Your task to perform on an android device: turn off location Image 0: 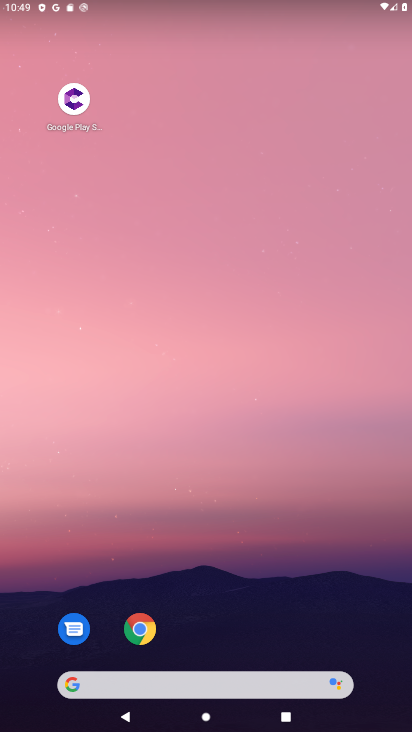
Step 0: drag from (178, 598) to (277, 59)
Your task to perform on an android device: turn off location Image 1: 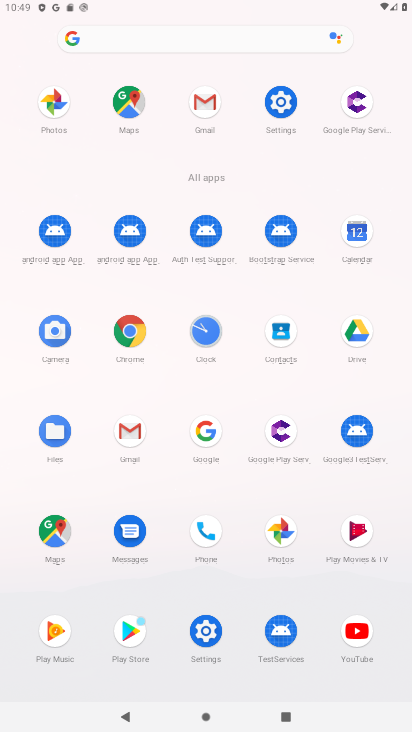
Step 1: click (282, 93)
Your task to perform on an android device: turn off location Image 2: 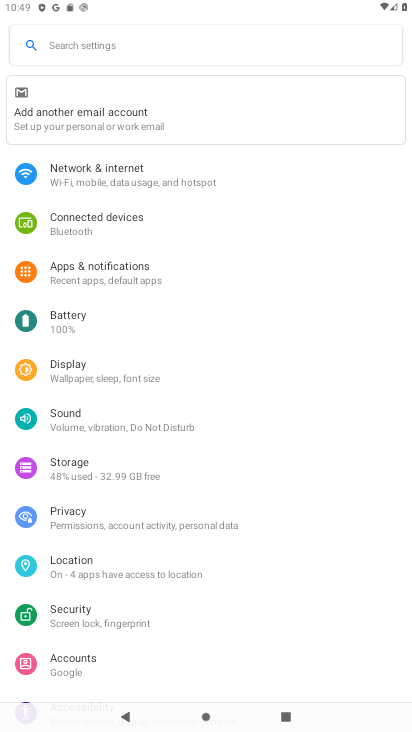
Step 2: click (118, 572)
Your task to perform on an android device: turn off location Image 3: 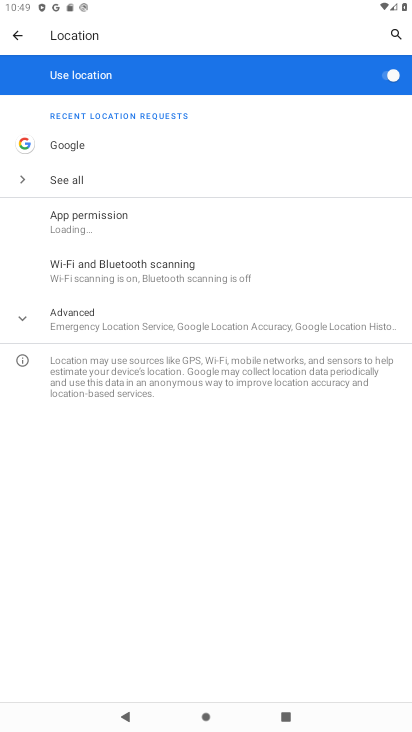
Step 3: click (130, 323)
Your task to perform on an android device: turn off location Image 4: 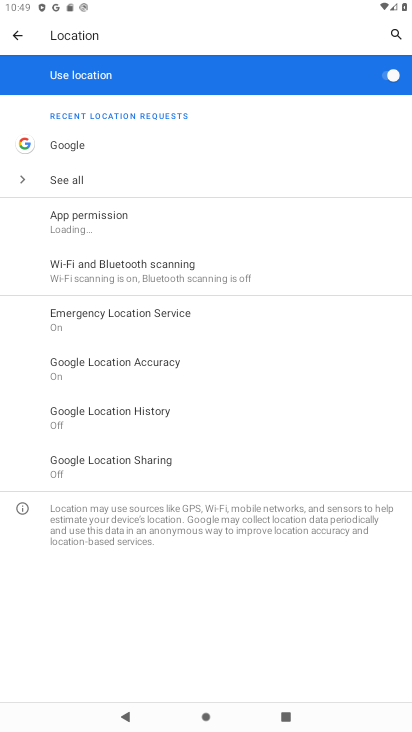
Step 4: click (383, 61)
Your task to perform on an android device: turn off location Image 5: 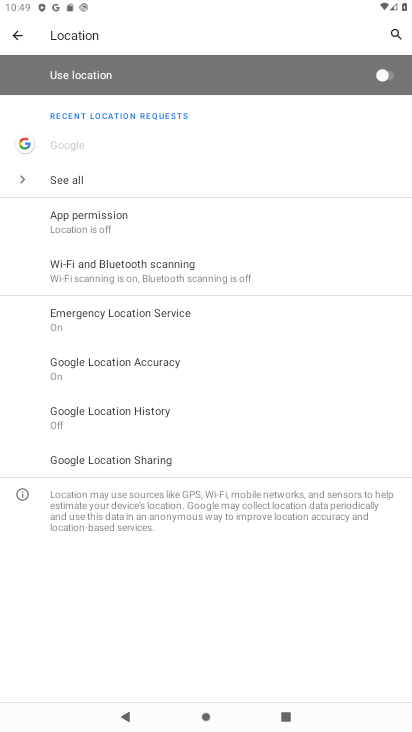
Step 5: task complete